Your task to perform on an android device: turn off notifications settings in the gmail app Image 0: 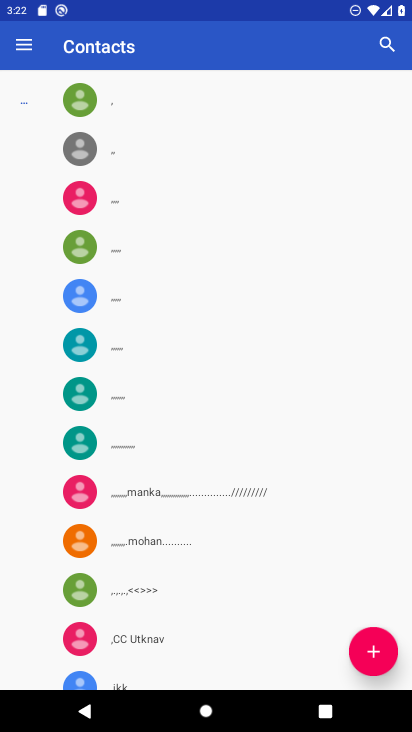
Step 0: press home button
Your task to perform on an android device: turn off notifications settings in the gmail app Image 1: 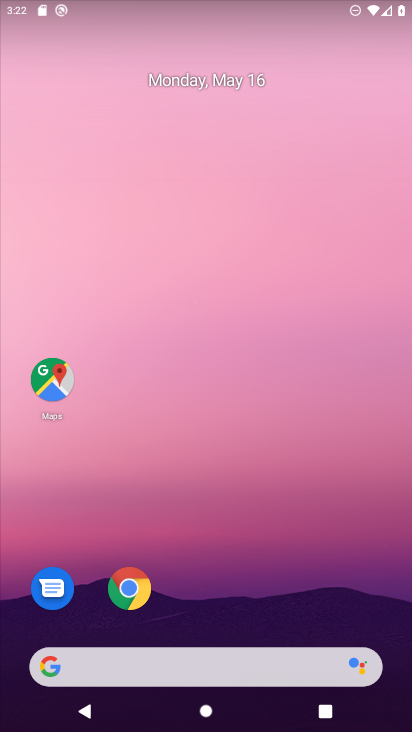
Step 1: drag from (283, 606) to (323, 0)
Your task to perform on an android device: turn off notifications settings in the gmail app Image 2: 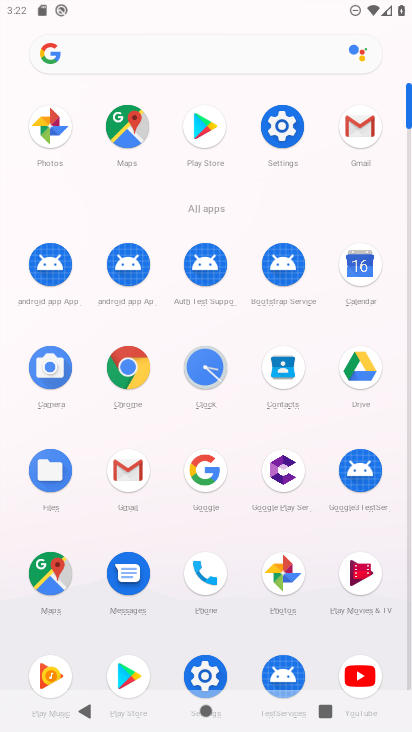
Step 2: click (357, 134)
Your task to perform on an android device: turn off notifications settings in the gmail app Image 3: 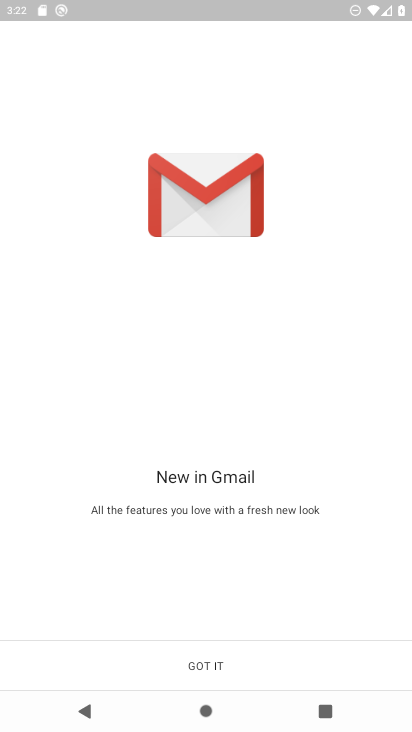
Step 3: click (224, 671)
Your task to perform on an android device: turn off notifications settings in the gmail app Image 4: 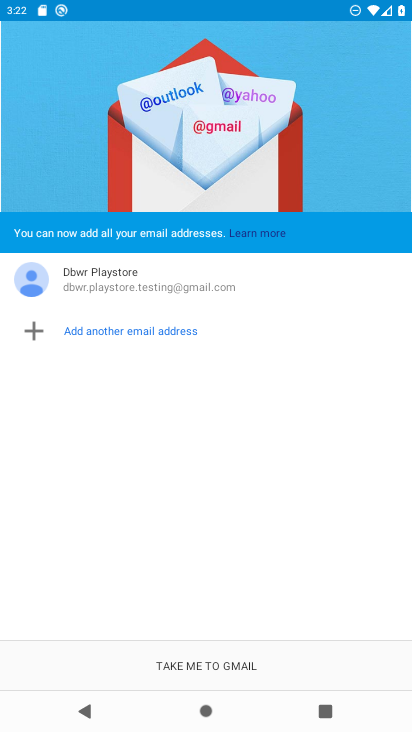
Step 4: click (224, 671)
Your task to perform on an android device: turn off notifications settings in the gmail app Image 5: 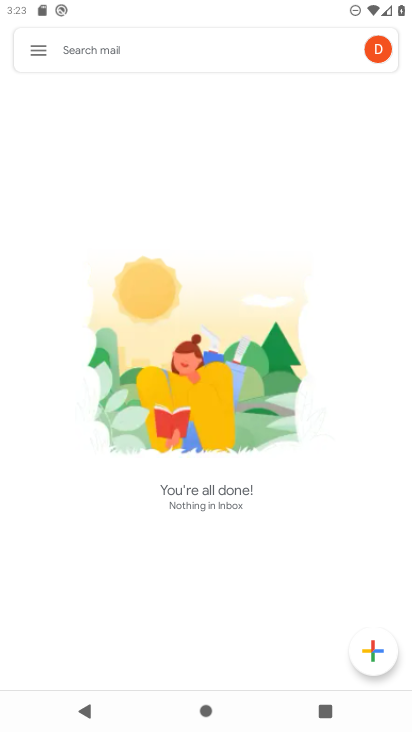
Step 5: click (36, 47)
Your task to perform on an android device: turn off notifications settings in the gmail app Image 6: 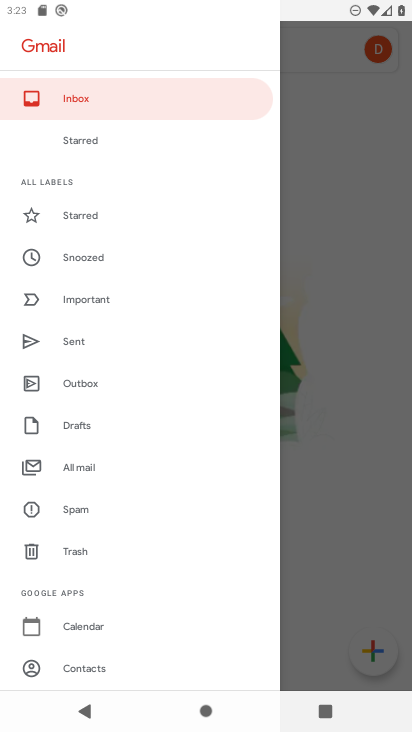
Step 6: drag from (140, 629) to (170, 314)
Your task to perform on an android device: turn off notifications settings in the gmail app Image 7: 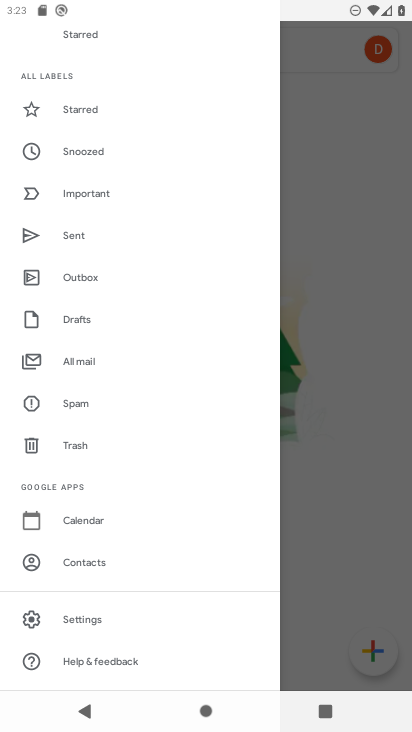
Step 7: click (72, 616)
Your task to perform on an android device: turn off notifications settings in the gmail app Image 8: 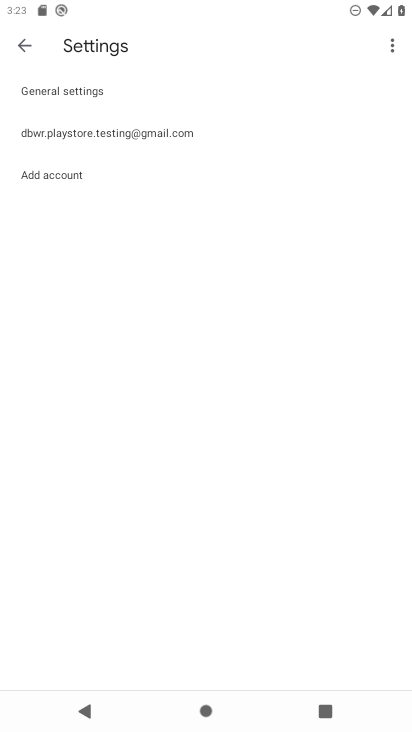
Step 8: click (61, 92)
Your task to perform on an android device: turn off notifications settings in the gmail app Image 9: 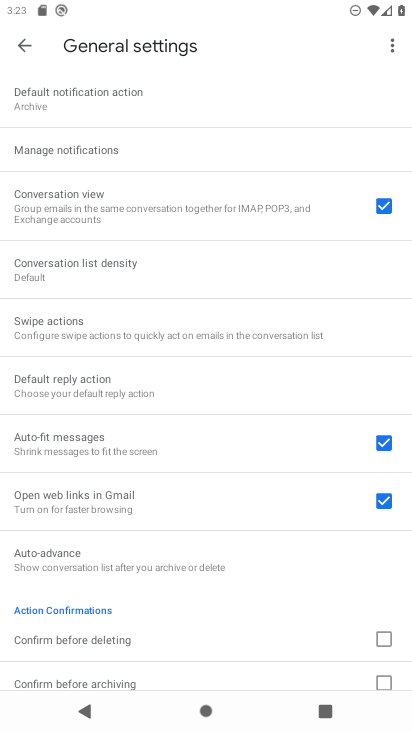
Step 9: click (64, 151)
Your task to perform on an android device: turn off notifications settings in the gmail app Image 10: 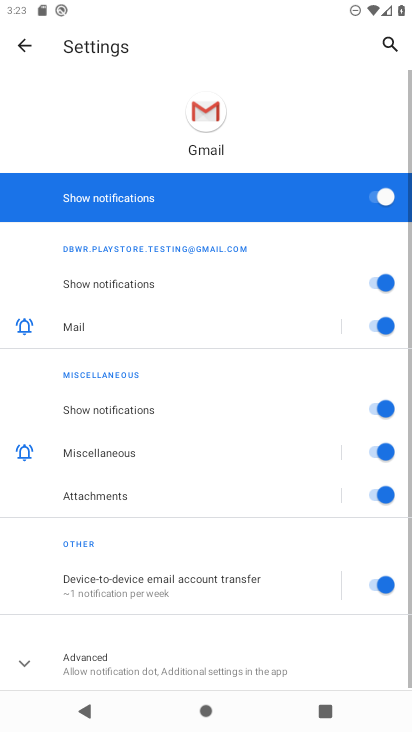
Step 10: click (382, 194)
Your task to perform on an android device: turn off notifications settings in the gmail app Image 11: 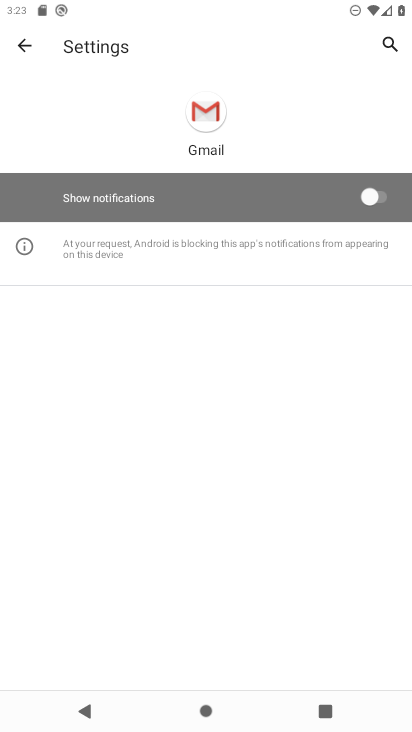
Step 11: task complete